Your task to perform on an android device: turn smart compose on in the gmail app Image 0: 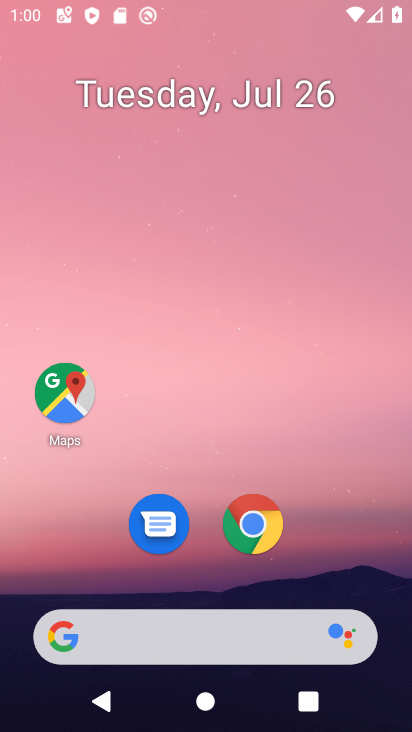
Step 0: click (336, 312)
Your task to perform on an android device: turn smart compose on in the gmail app Image 1: 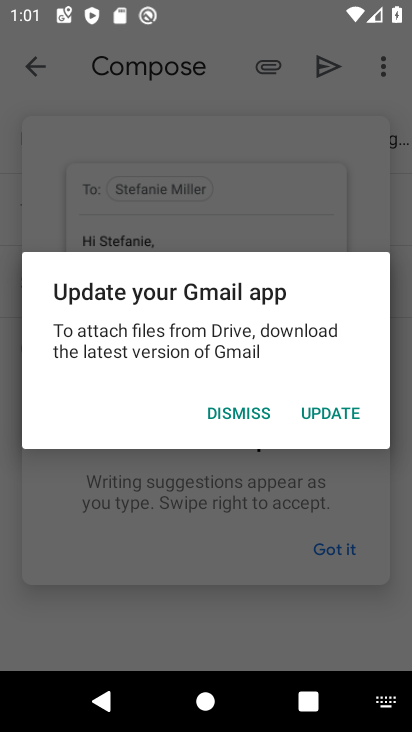
Step 1: press home button
Your task to perform on an android device: turn smart compose on in the gmail app Image 2: 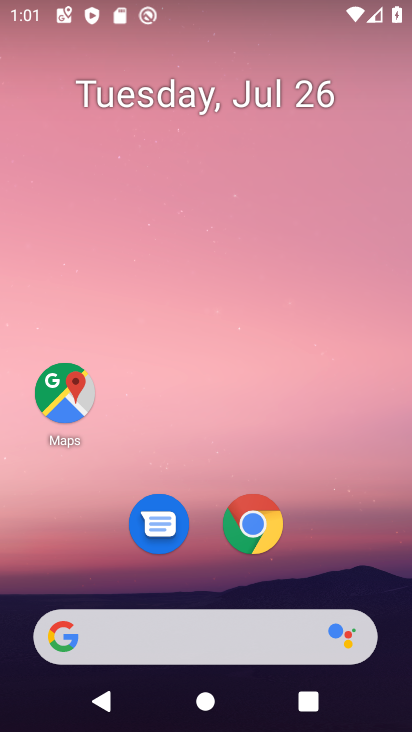
Step 2: drag from (342, 319) to (353, 83)
Your task to perform on an android device: turn smart compose on in the gmail app Image 3: 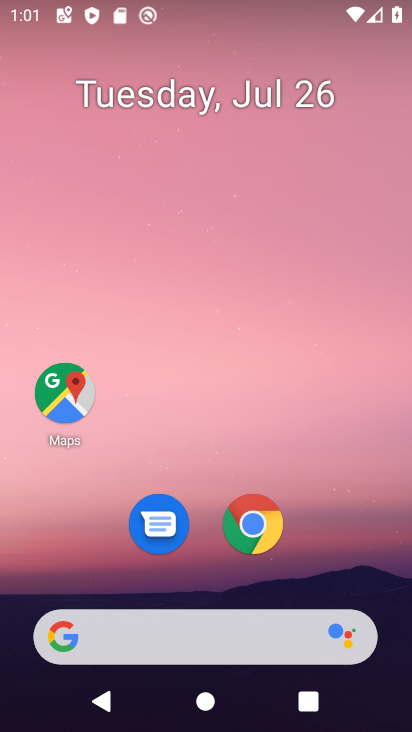
Step 3: drag from (325, 564) to (320, 0)
Your task to perform on an android device: turn smart compose on in the gmail app Image 4: 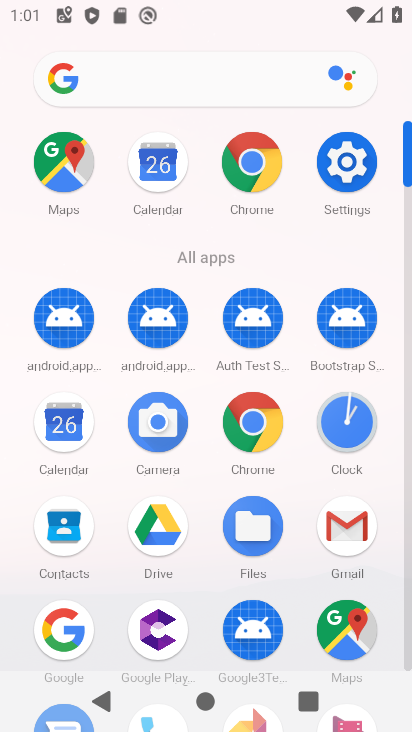
Step 4: click (349, 524)
Your task to perform on an android device: turn smart compose on in the gmail app Image 5: 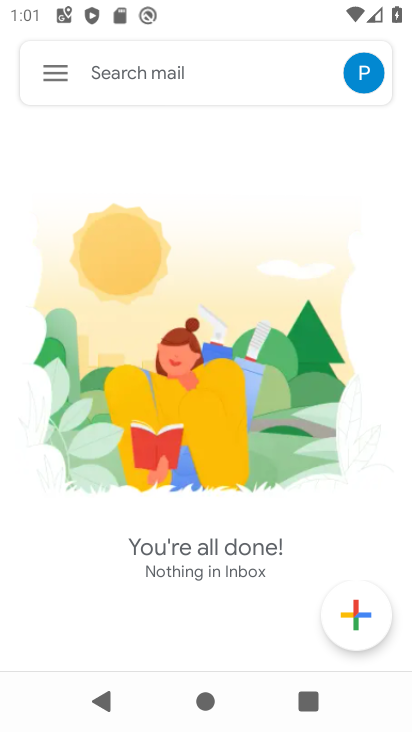
Step 5: click (57, 76)
Your task to perform on an android device: turn smart compose on in the gmail app Image 6: 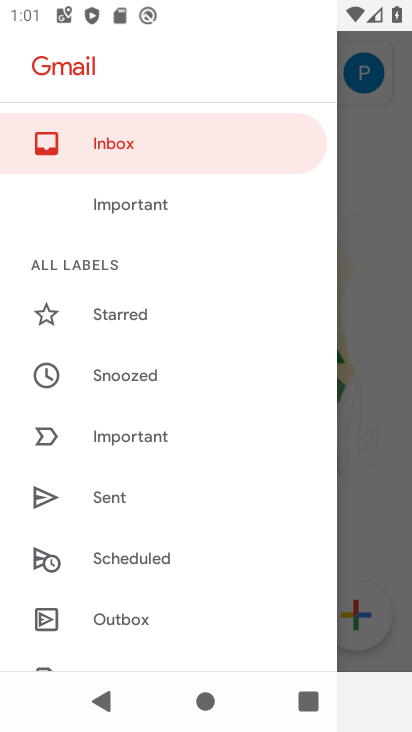
Step 6: drag from (157, 585) to (210, 142)
Your task to perform on an android device: turn smart compose on in the gmail app Image 7: 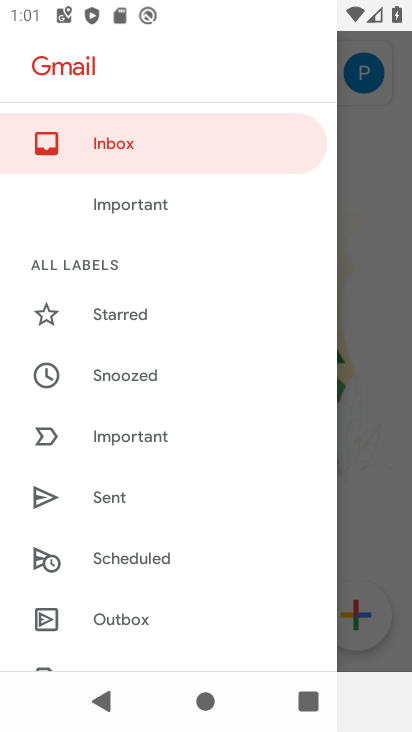
Step 7: drag from (179, 587) to (264, 32)
Your task to perform on an android device: turn smart compose on in the gmail app Image 8: 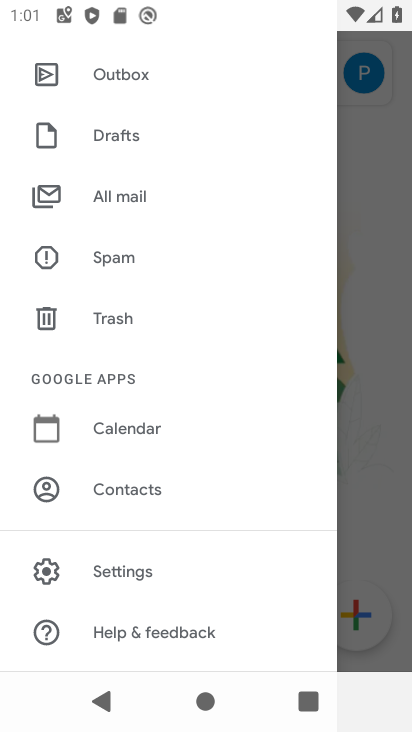
Step 8: click (138, 569)
Your task to perform on an android device: turn smart compose on in the gmail app Image 9: 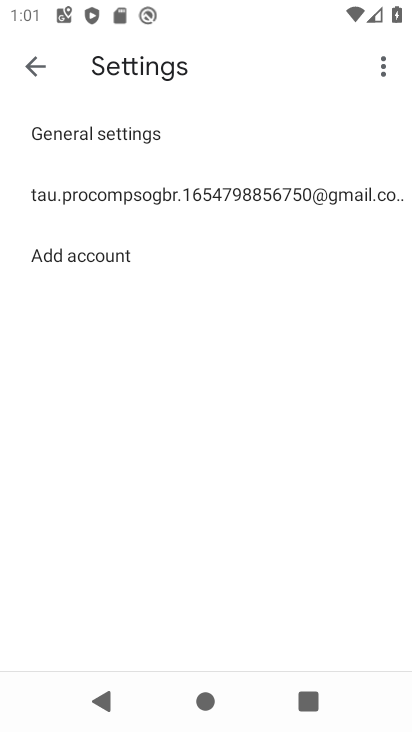
Step 9: click (199, 190)
Your task to perform on an android device: turn smart compose on in the gmail app Image 10: 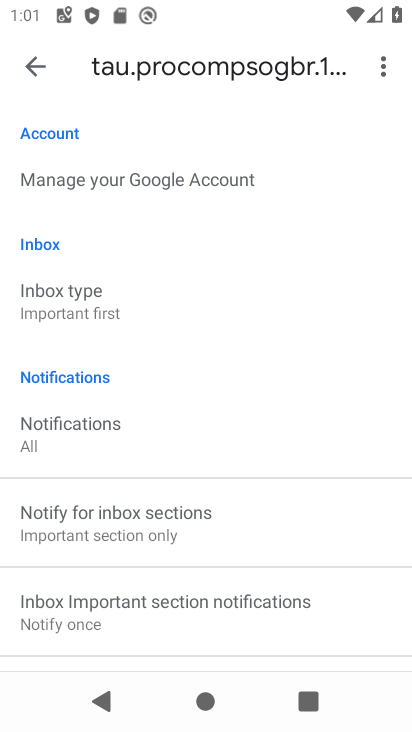
Step 10: task complete